Your task to perform on an android device: Open wifi settings Image 0: 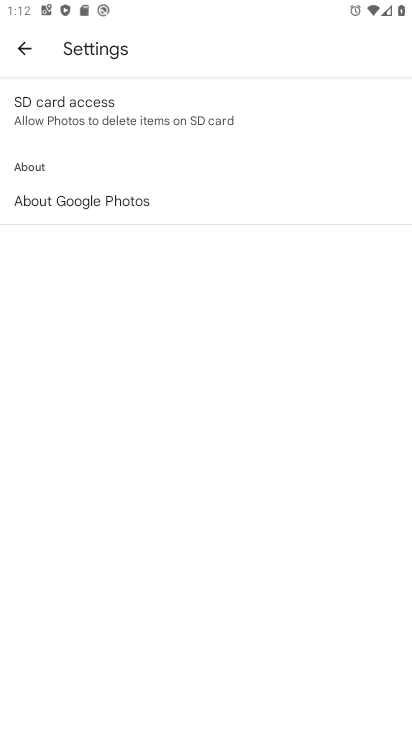
Step 0: press home button
Your task to perform on an android device: Open wifi settings Image 1: 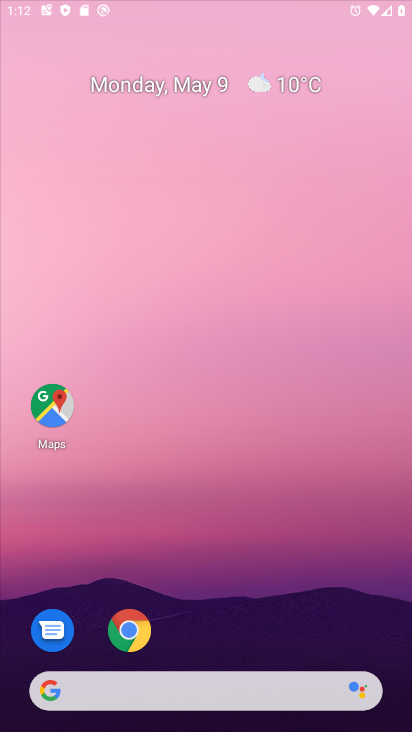
Step 1: drag from (373, 629) to (256, 60)
Your task to perform on an android device: Open wifi settings Image 2: 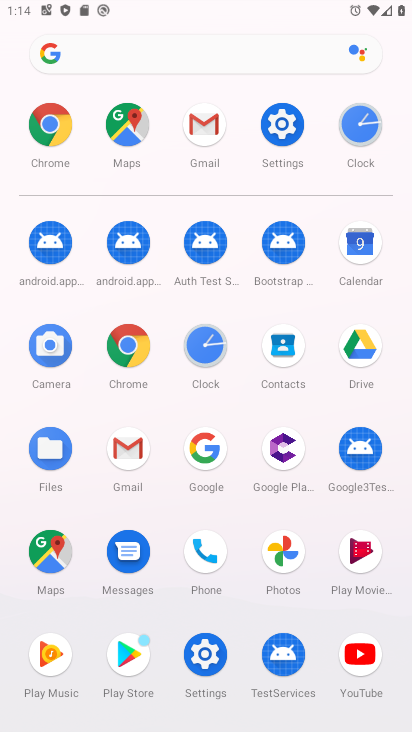
Step 2: click (301, 131)
Your task to perform on an android device: Open wifi settings Image 3: 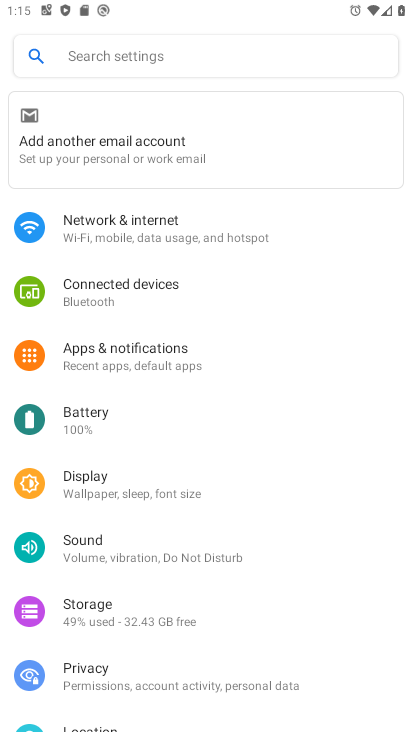
Step 3: click (168, 225)
Your task to perform on an android device: Open wifi settings Image 4: 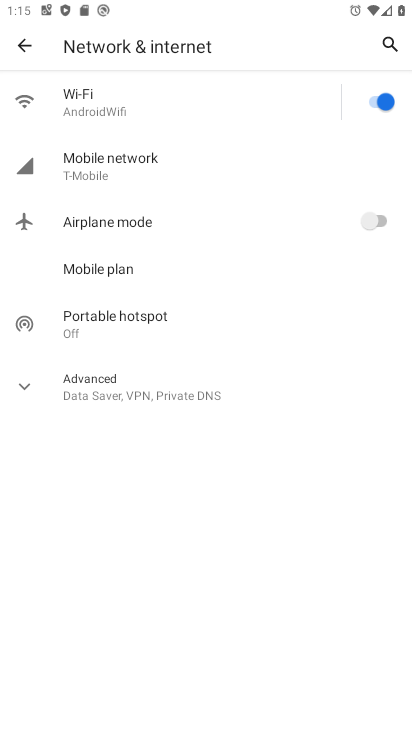
Step 4: click (159, 121)
Your task to perform on an android device: Open wifi settings Image 5: 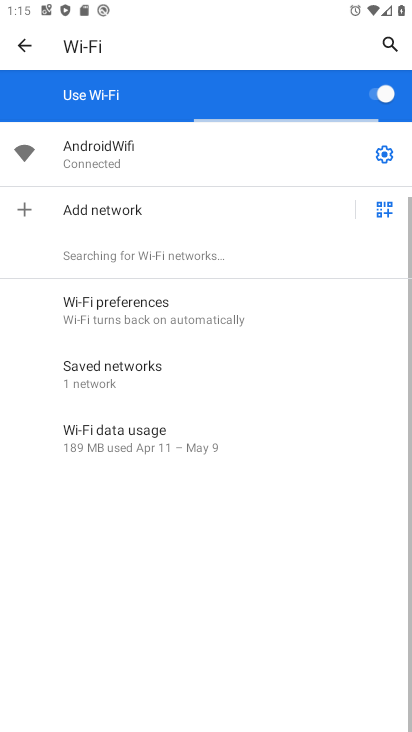
Step 5: task complete